Your task to perform on an android device: Open Amazon Image 0: 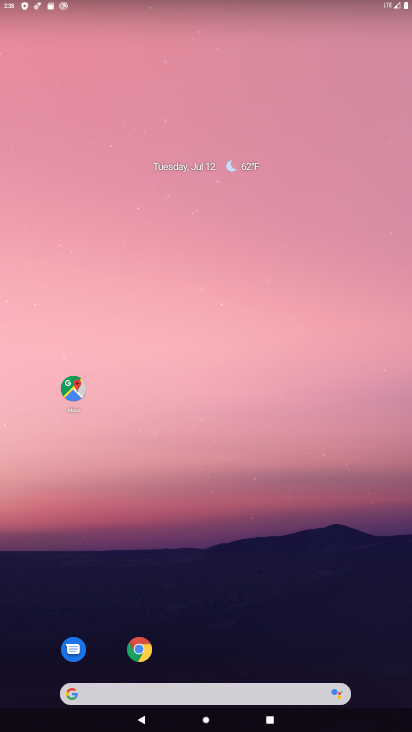
Step 0: click (148, 657)
Your task to perform on an android device: Open Amazon Image 1: 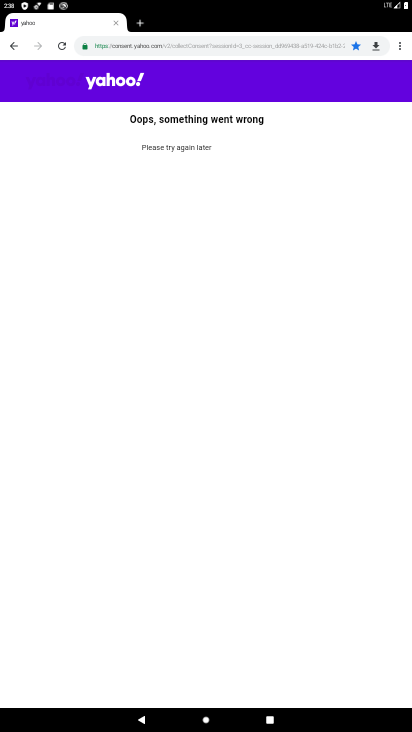
Step 1: click (399, 49)
Your task to perform on an android device: Open Amazon Image 2: 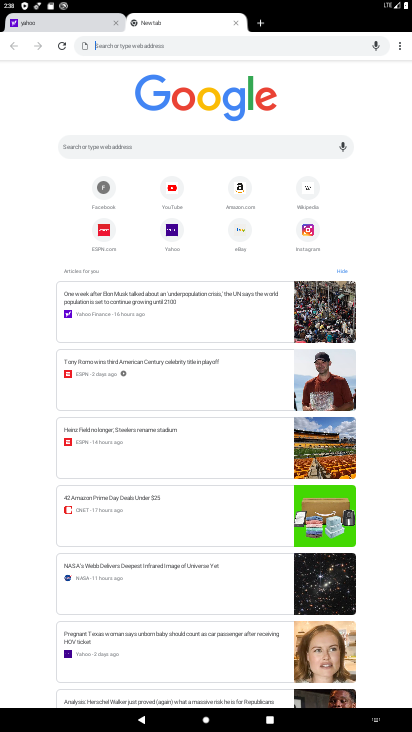
Step 2: click (235, 191)
Your task to perform on an android device: Open Amazon Image 3: 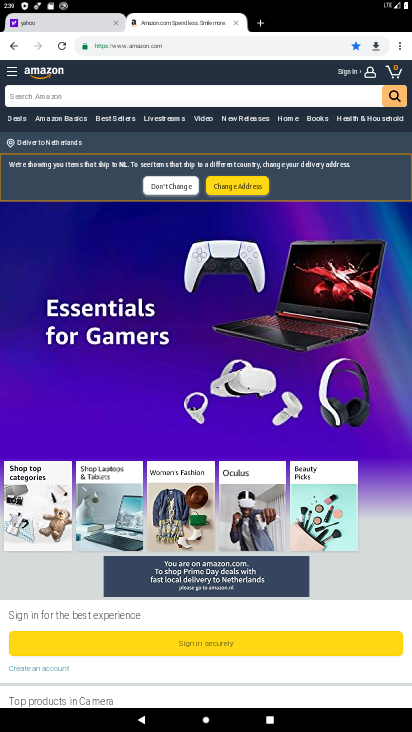
Step 3: task complete